Your task to perform on an android device: turn on showing notifications on the lock screen Image 0: 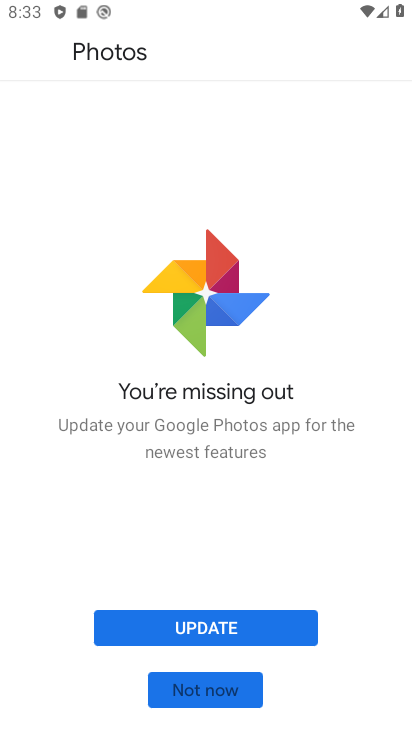
Step 0: press home button
Your task to perform on an android device: turn on showing notifications on the lock screen Image 1: 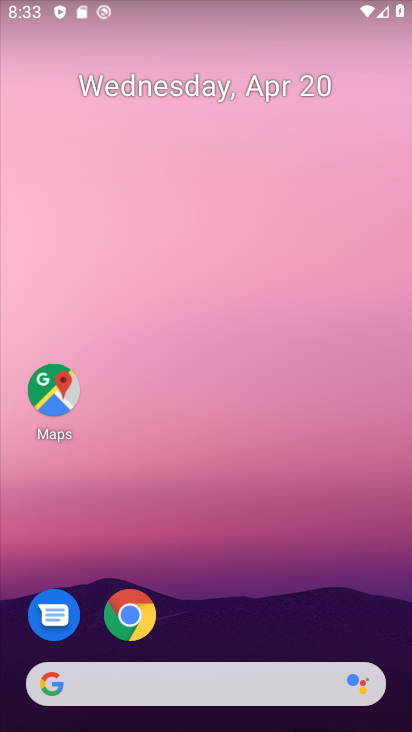
Step 1: drag from (227, 601) to (241, 66)
Your task to perform on an android device: turn on showing notifications on the lock screen Image 2: 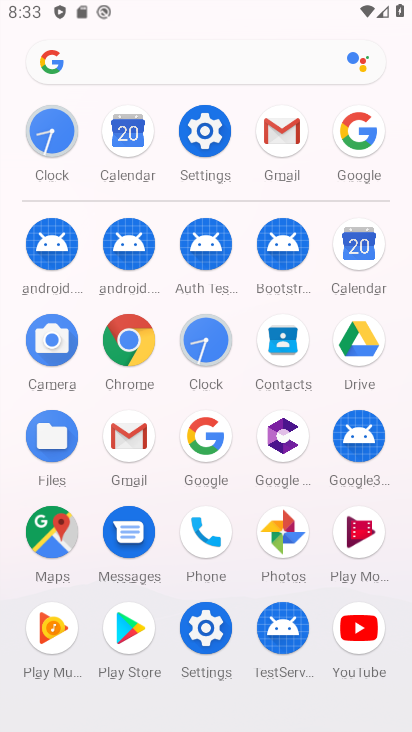
Step 2: click (208, 132)
Your task to perform on an android device: turn on showing notifications on the lock screen Image 3: 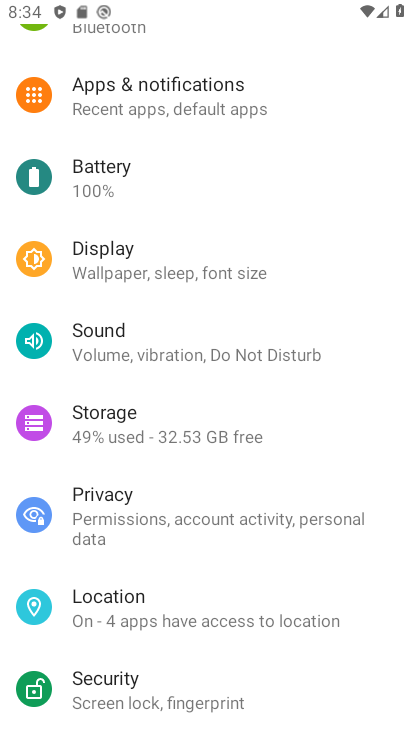
Step 3: click (217, 84)
Your task to perform on an android device: turn on showing notifications on the lock screen Image 4: 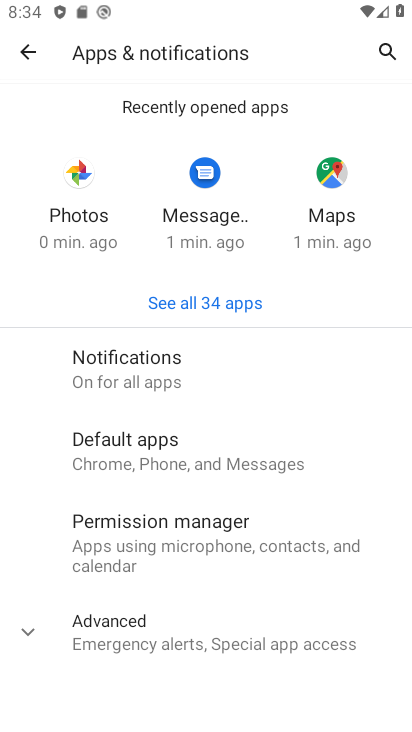
Step 4: click (148, 357)
Your task to perform on an android device: turn on showing notifications on the lock screen Image 5: 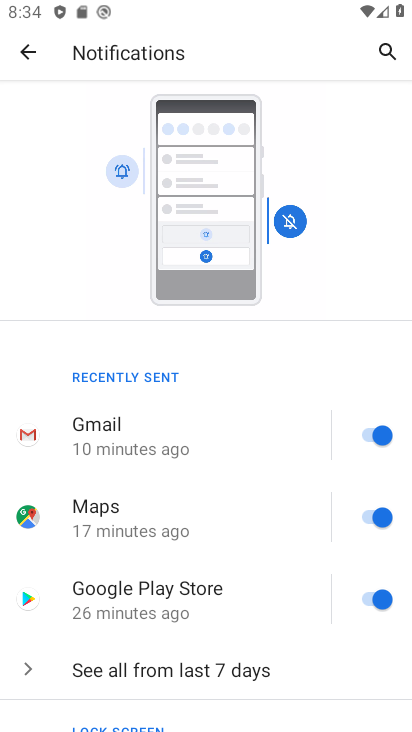
Step 5: drag from (221, 471) to (254, 348)
Your task to perform on an android device: turn on showing notifications on the lock screen Image 6: 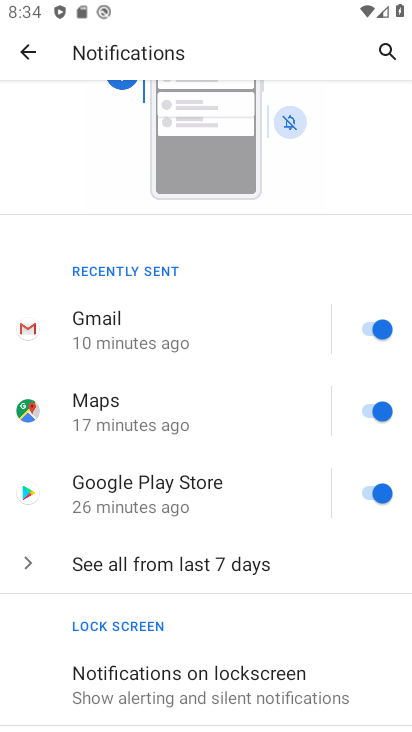
Step 6: drag from (209, 521) to (239, 401)
Your task to perform on an android device: turn on showing notifications on the lock screen Image 7: 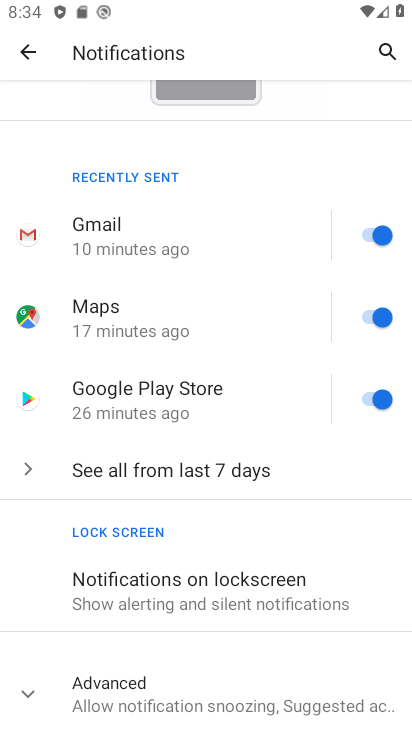
Step 7: click (206, 581)
Your task to perform on an android device: turn on showing notifications on the lock screen Image 8: 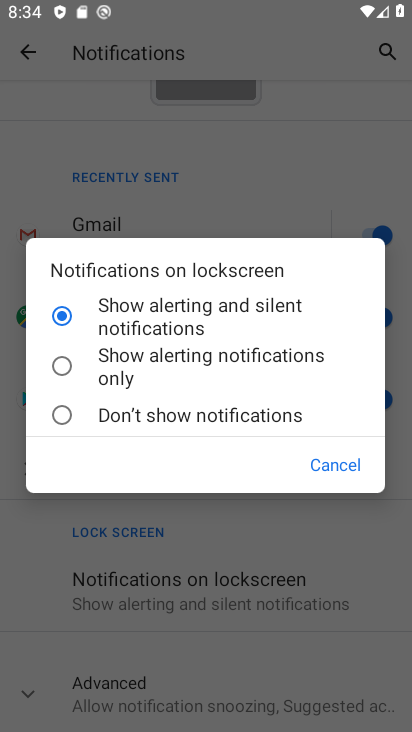
Step 8: task complete